Your task to perform on an android device: Open the calendar and show me this week's events? Image 0: 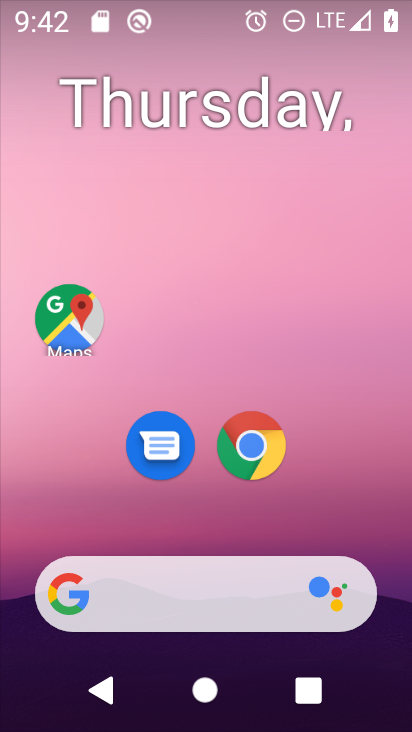
Step 0: drag from (408, 513) to (352, 183)
Your task to perform on an android device: Open the calendar and show me this week's events? Image 1: 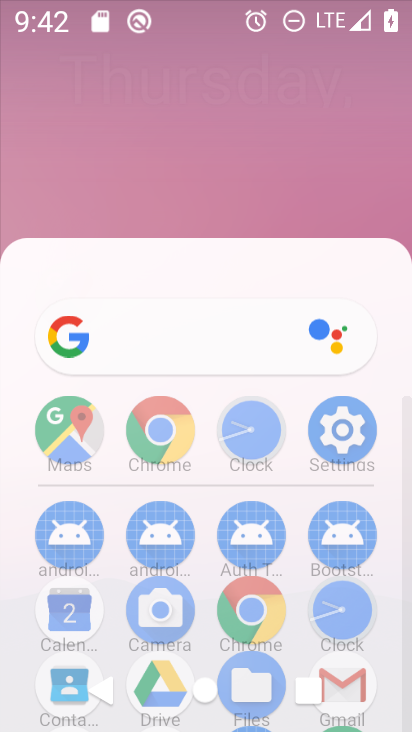
Step 1: click (281, 43)
Your task to perform on an android device: Open the calendar and show me this week's events? Image 2: 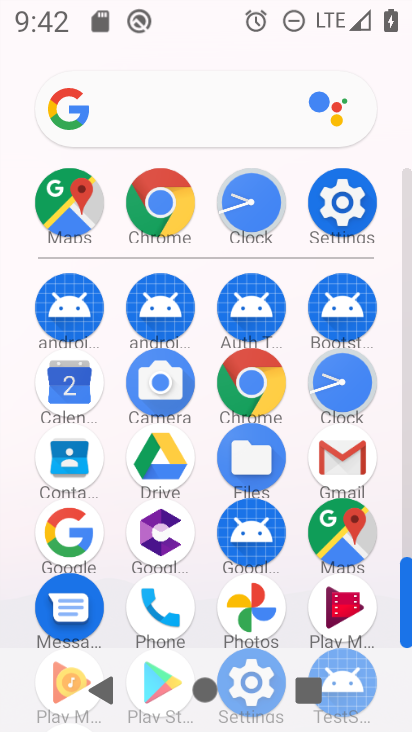
Step 2: click (67, 408)
Your task to perform on an android device: Open the calendar and show me this week's events? Image 3: 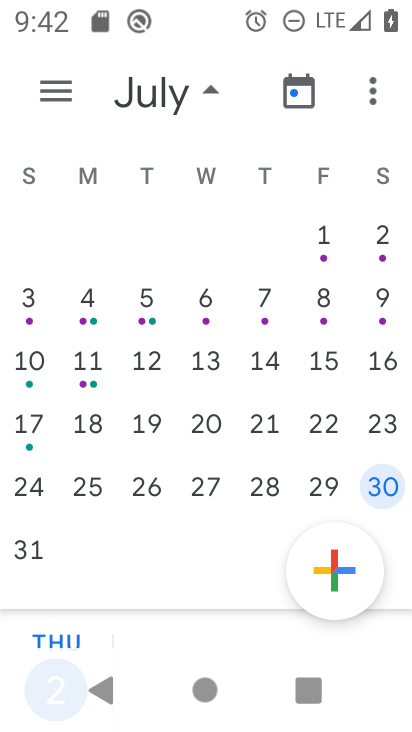
Step 3: task complete